Your task to perform on an android device: How much does a 3 bedroom apartment rent for in New York? Image 0: 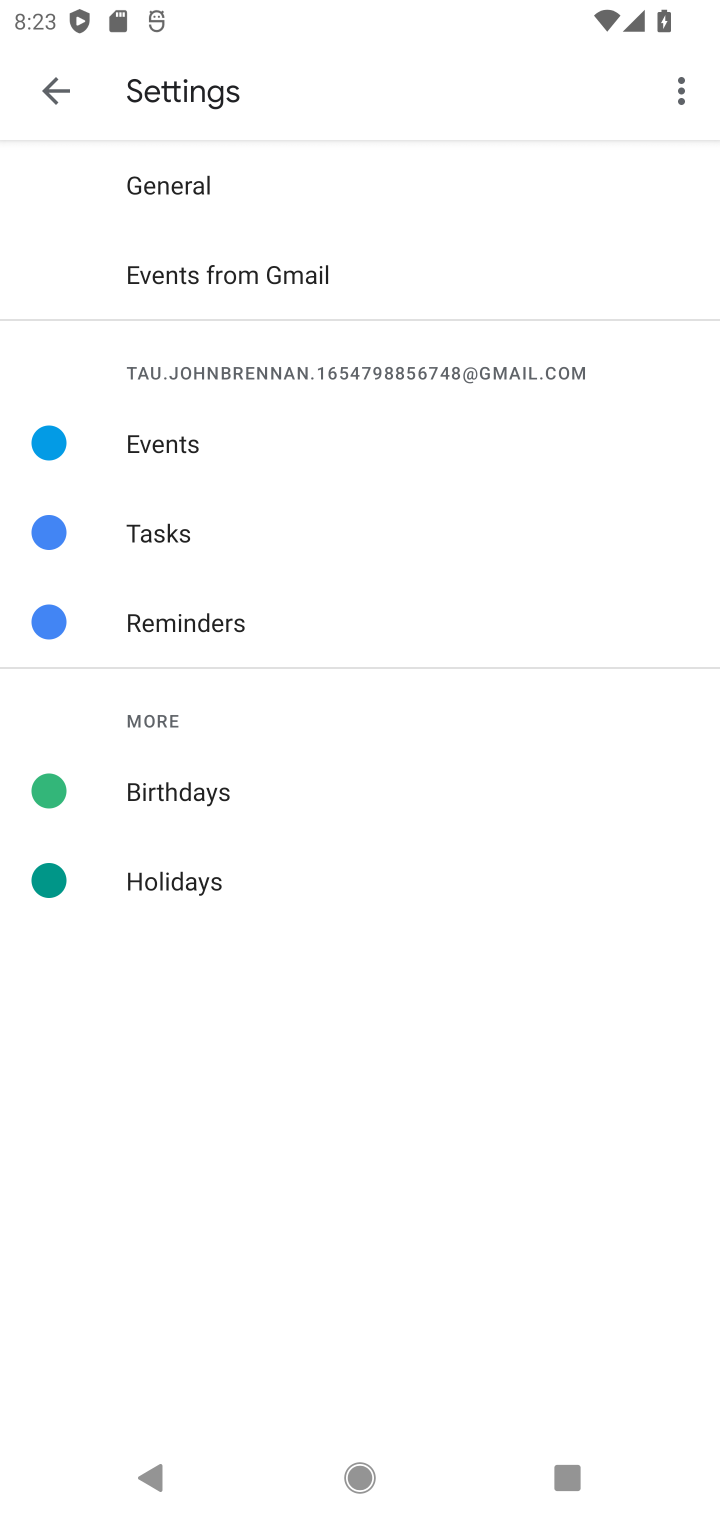
Step 0: press home button
Your task to perform on an android device: How much does a 3 bedroom apartment rent for in New York? Image 1: 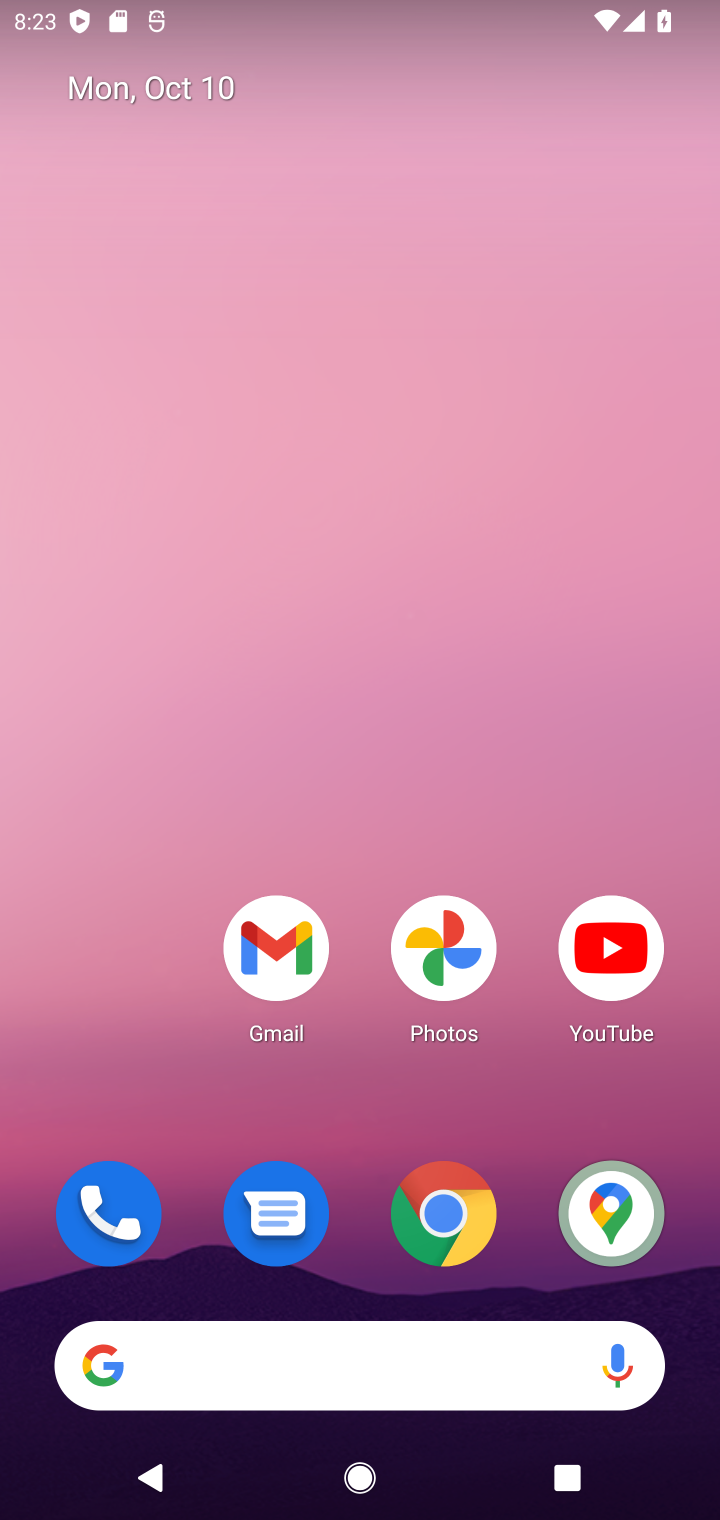
Step 1: click (421, 1382)
Your task to perform on an android device: How much does a 3 bedroom apartment rent for in New York? Image 2: 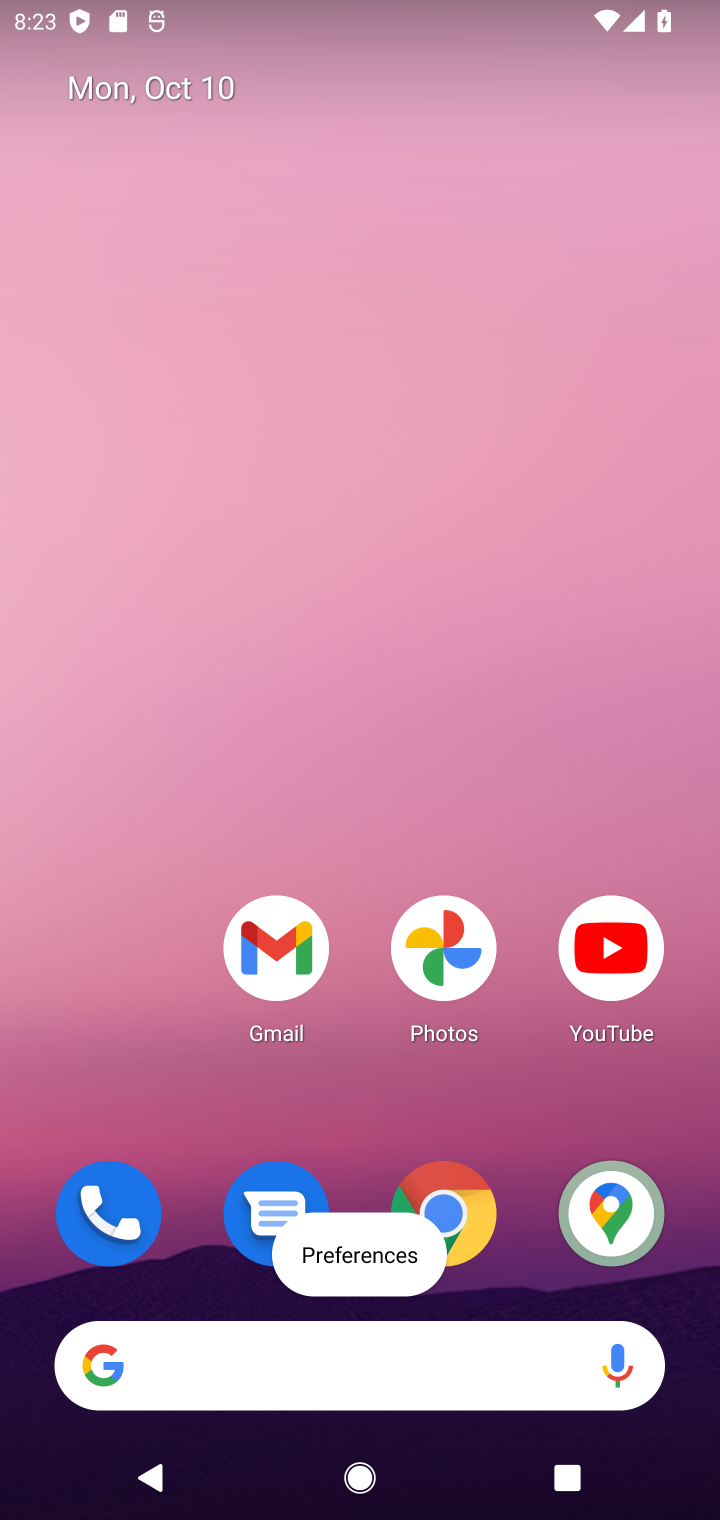
Step 2: click (261, 1363)
Your task to perform on an android device: How much does a 3 bedroom apartment rent for in New York? Image 3: 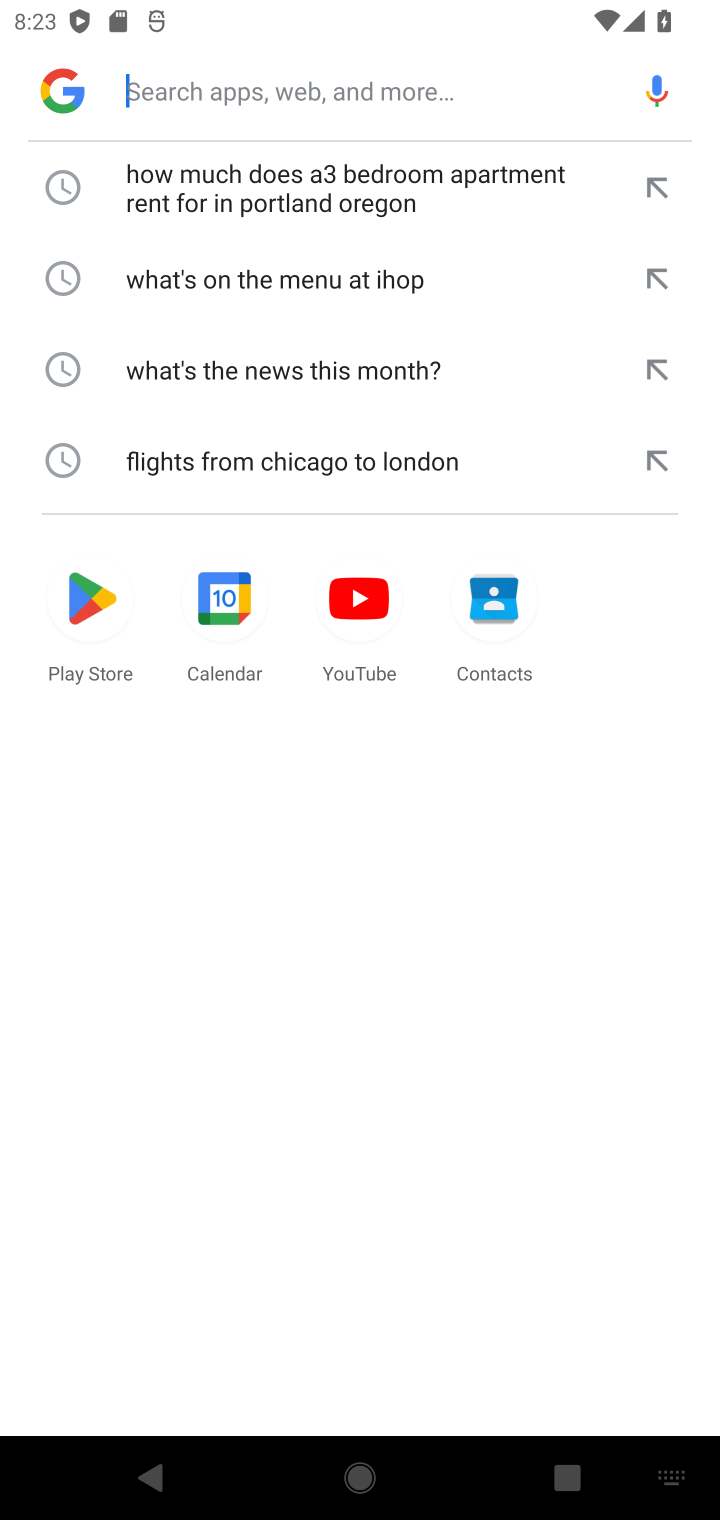
Step 3: click (229, 87)
Your task to perform on an android device: How much does a 3 bedroom apartment rent for in New York? Image 4: 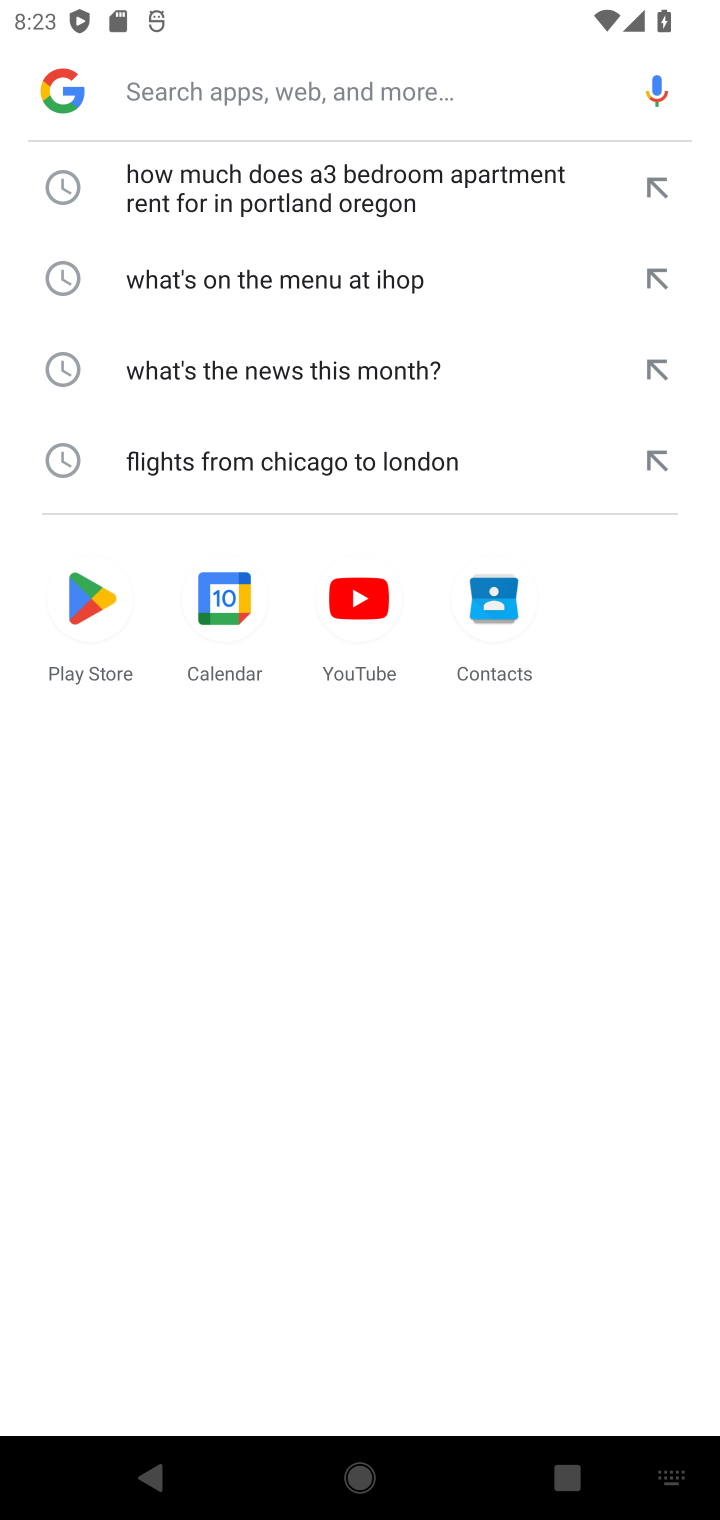
Step 4: type "How much does a 3 bedroom apartment rent for in New York?"
Your task to perform on an android device: How much does a 3 bedroom apartment rent for in New York? Image 5: 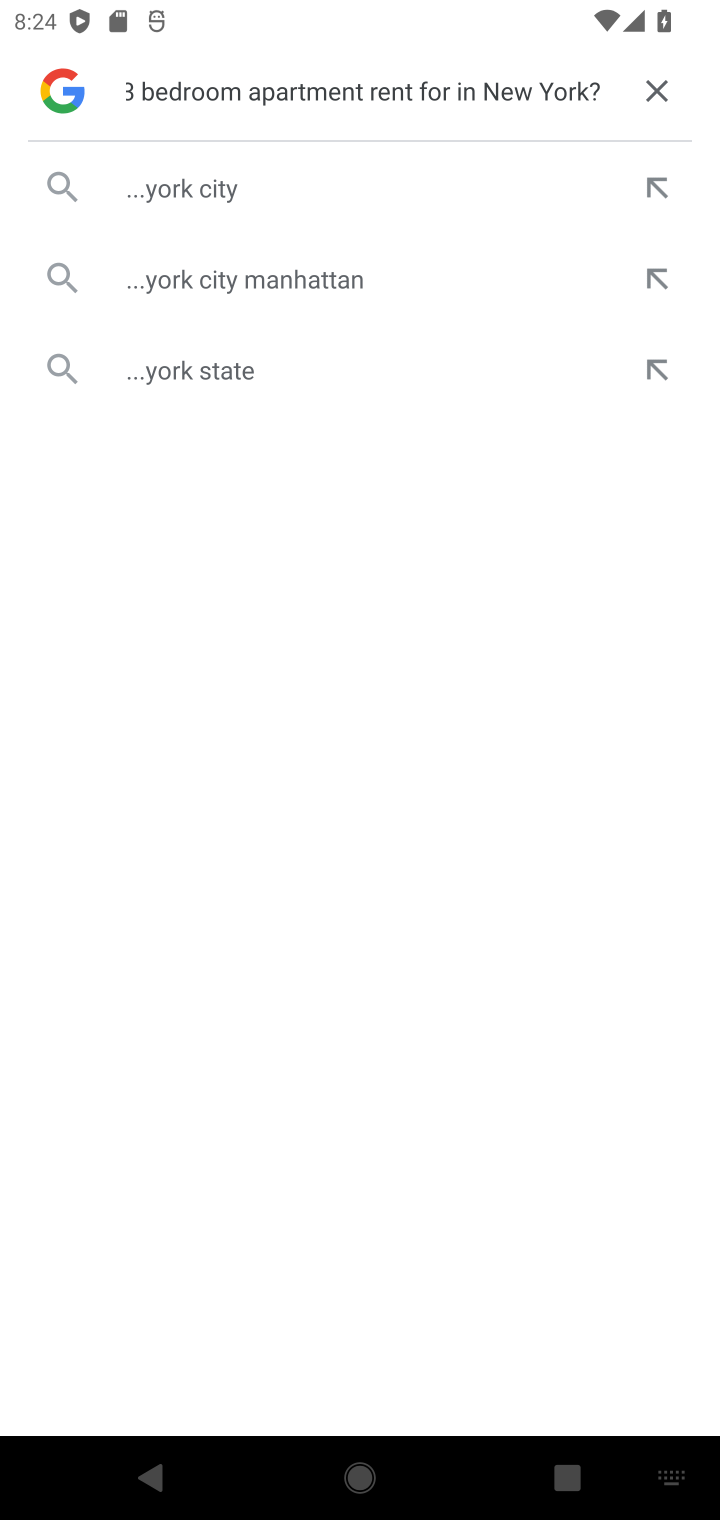
Step 5: click (185, 179)
Your task to perform on an android device: How much does a 3 bedroom apartment rent for in New York? Image 6: 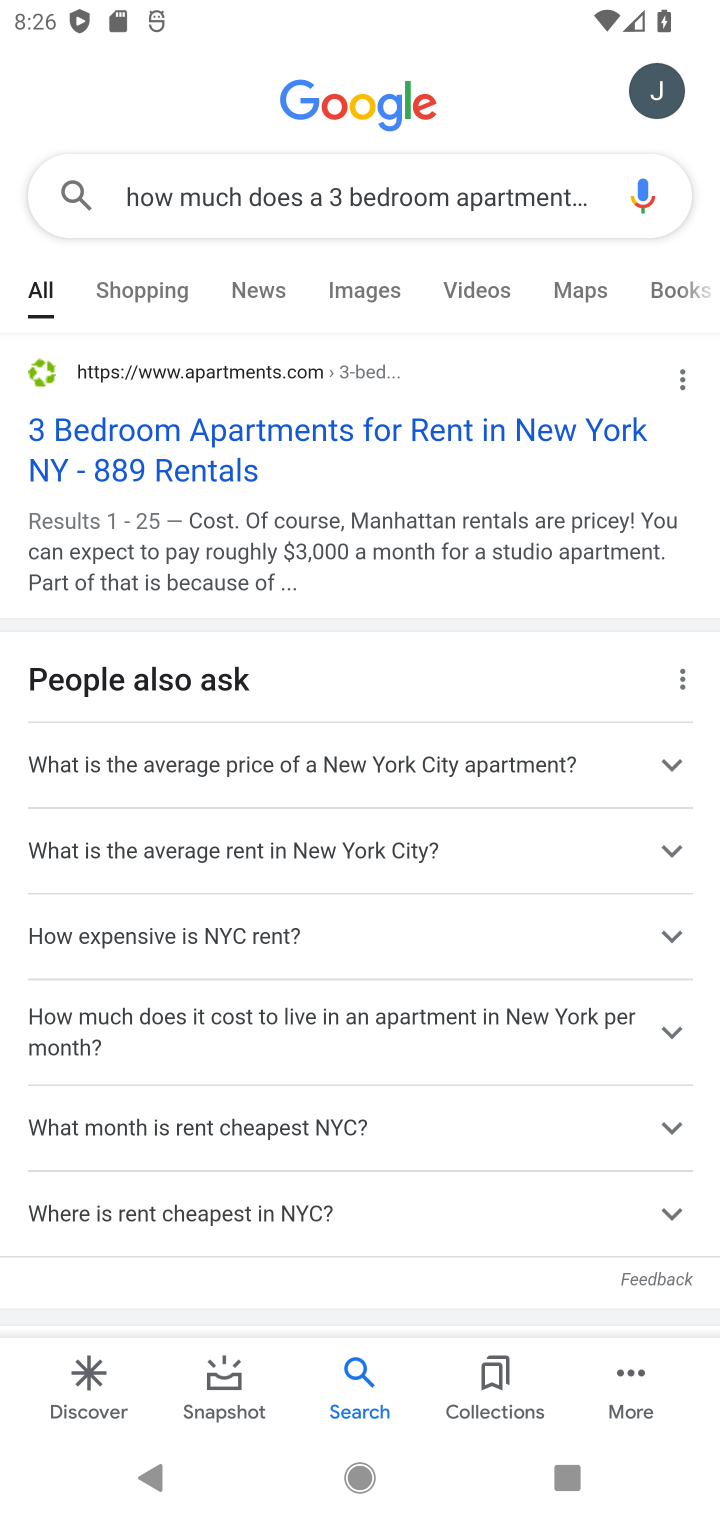
Step 6: click (252, 459)
Your task to perform on an android device: How much does a 3 bedroom apartment rent for in New York? Image 7: 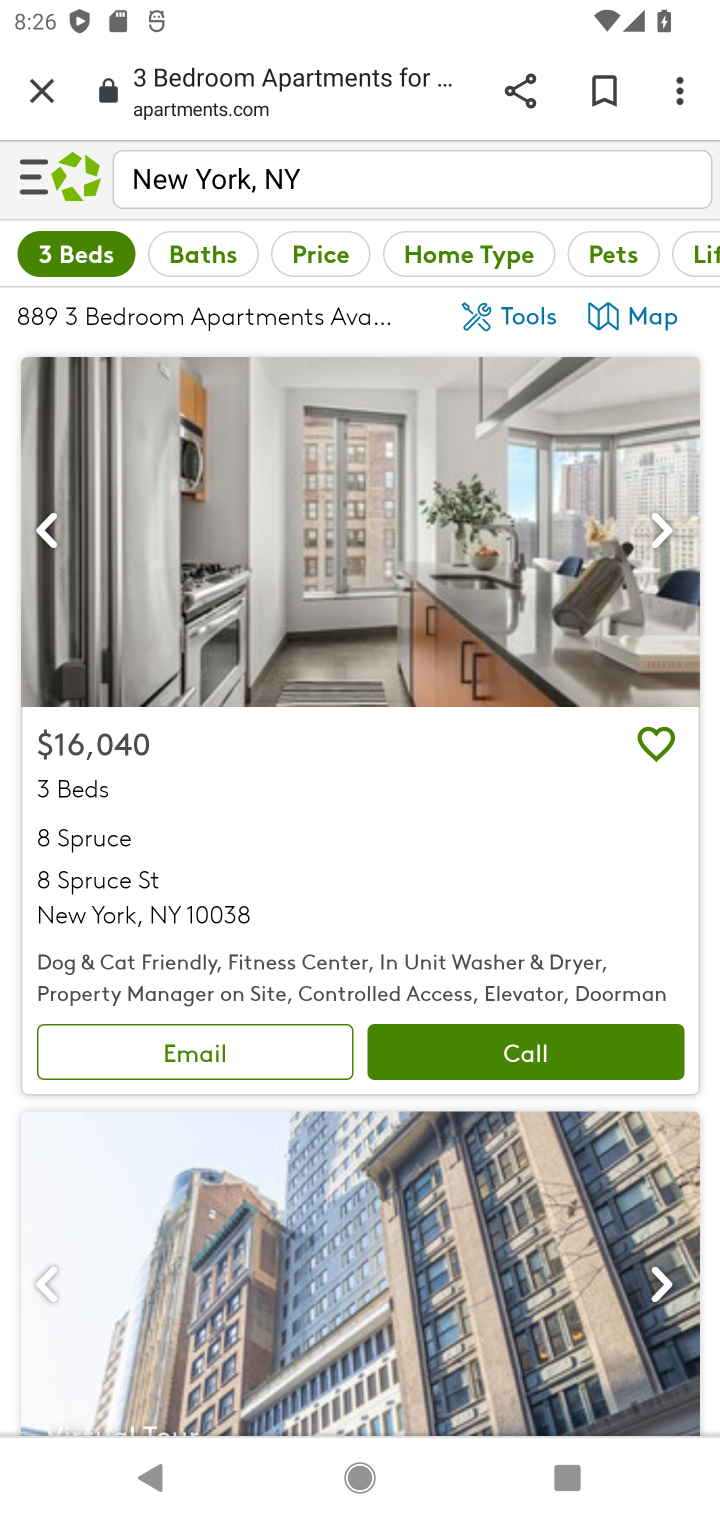
Step 7: task complete